Your task to perform on an android device: turn on javascript in the chrome app Image 0: 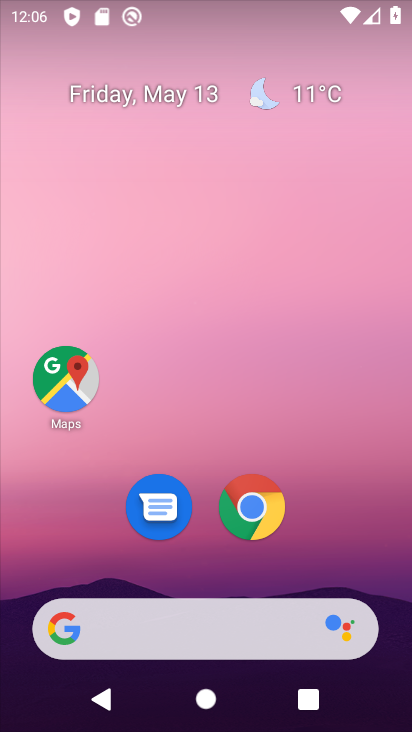
Step 0: click (240, 494)
Your task to perform on an android device: turn on javascript in the chrome app Image 1: 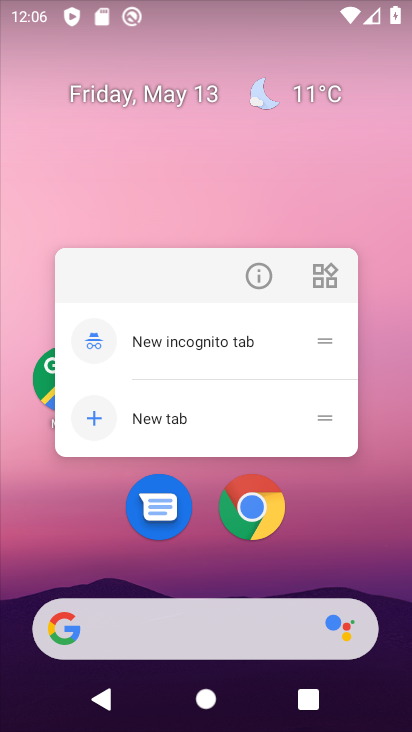
Step 1: click (252, 523)
Your task to perform on an android device: turn on javascript in the chrome app Image 2: 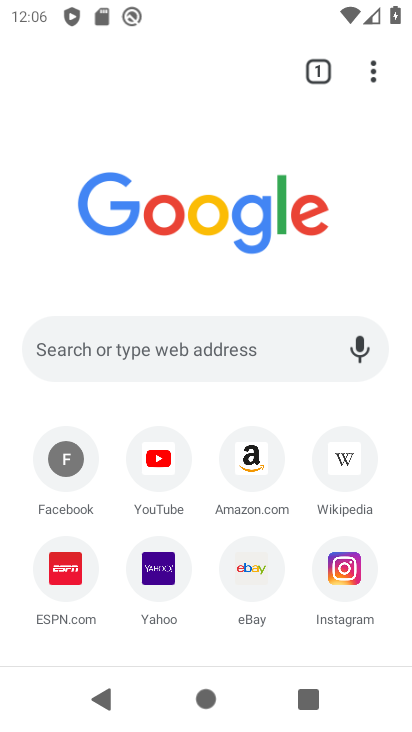
Step 2: click (364, 73)
Your task to perform on an android device: turn on javascript in the chrome app Image 3: 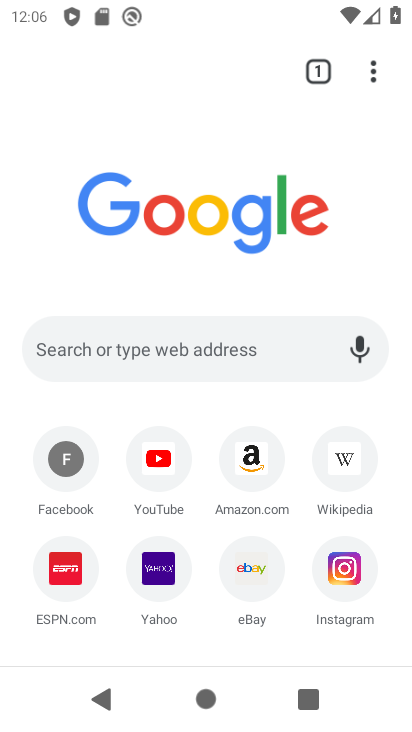
Step 3: click (362, 70)
Your task to perform on an android device: turn on javascript in the chrome app Image 4: 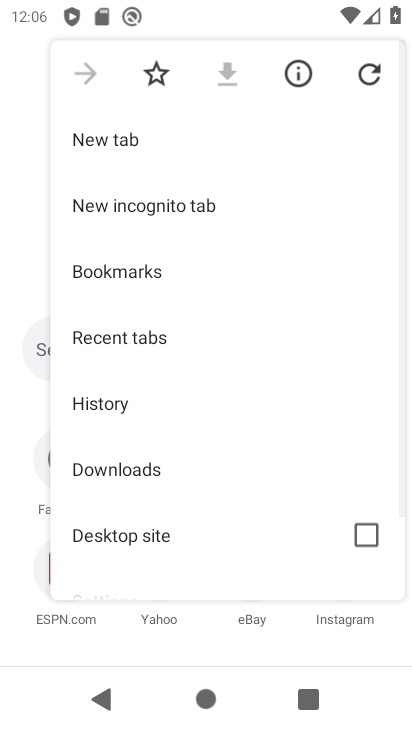
Step 4: drag from (110, 283) to (89, 88)
Your task to perform on an android device: turn on javascript in the chrome app Image 5: 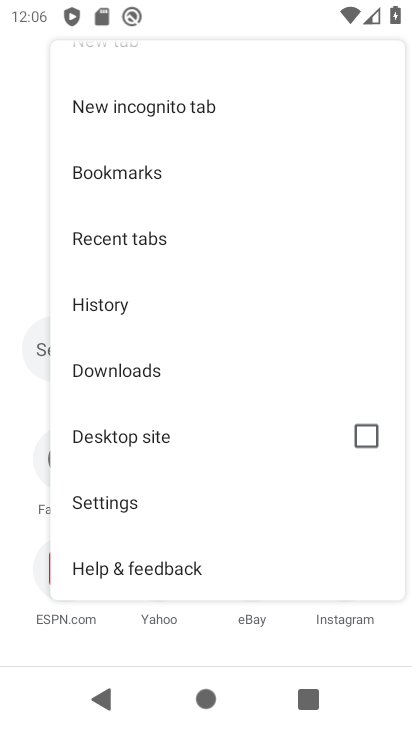
Step 5: click (122, 489)
Your task to perform on an android device: turn on javascript in the chrome app Image 6: 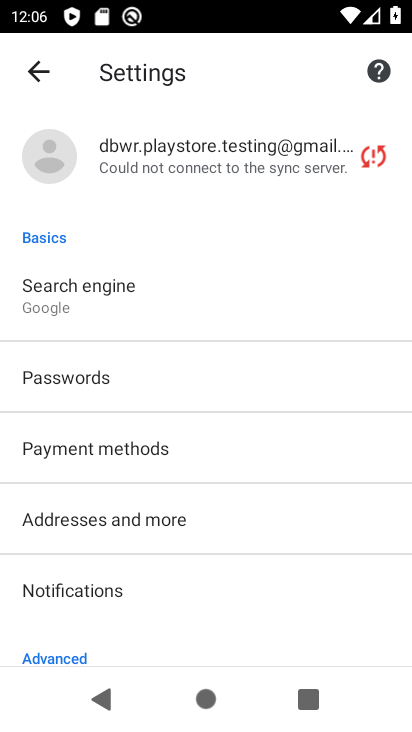
Step 6: drag from (153, 516) to (78, 16)
Your task to perform on an android device: turn on javascript in the chrome app Image 7: 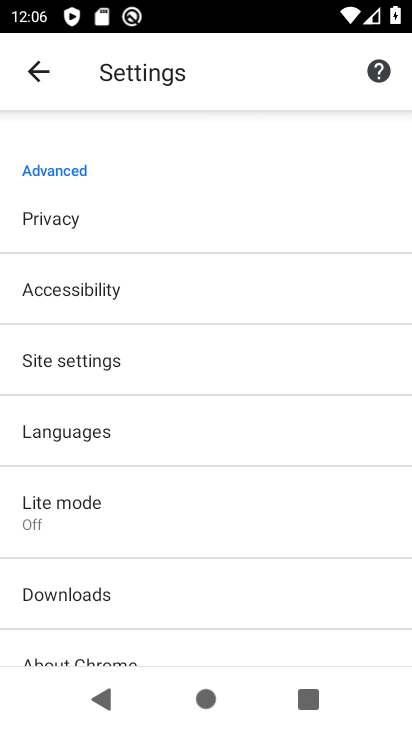
Step 7: drag from (99, 588) to (86, 471)
Your task to perform on an android device: turn on javascript in the chrome app Image 8: 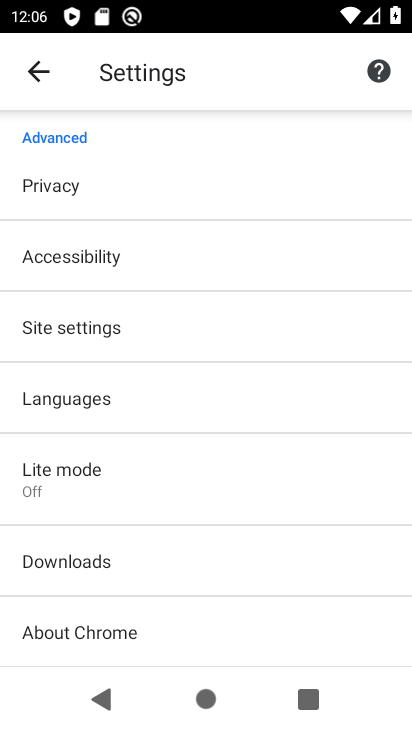
Step 8: click (76, 315)
Your task to perform on an android device: turn on javascript in the chrome app Image 9: 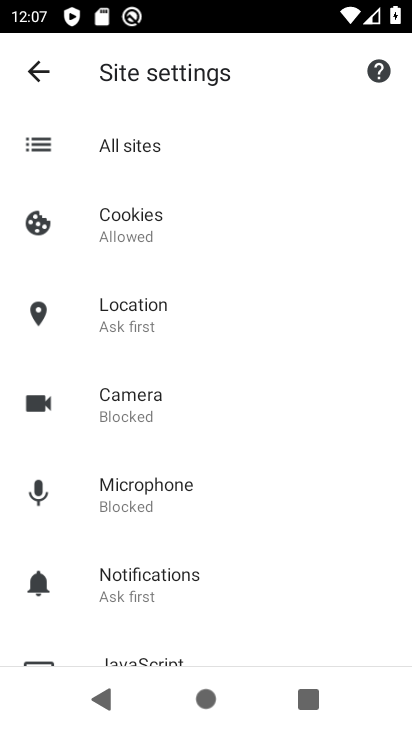
Step 9: click (131, 639)
Your task to perform on an android device: turn on javascript in the chrome app Image 10: 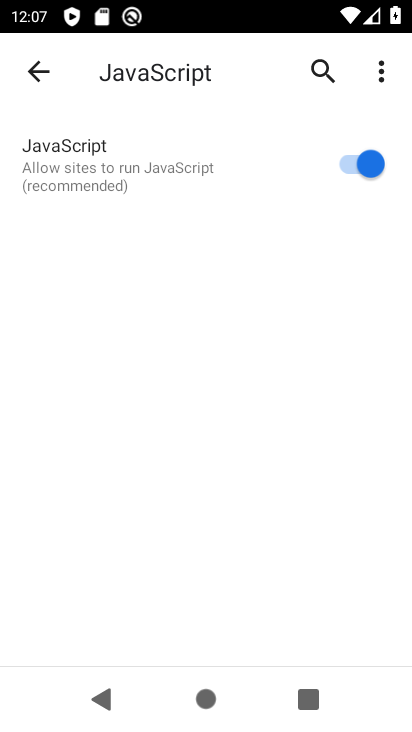
Step 10: task complete